Your task to perform on an android device: Do I have any events tomorrow? Image 0: 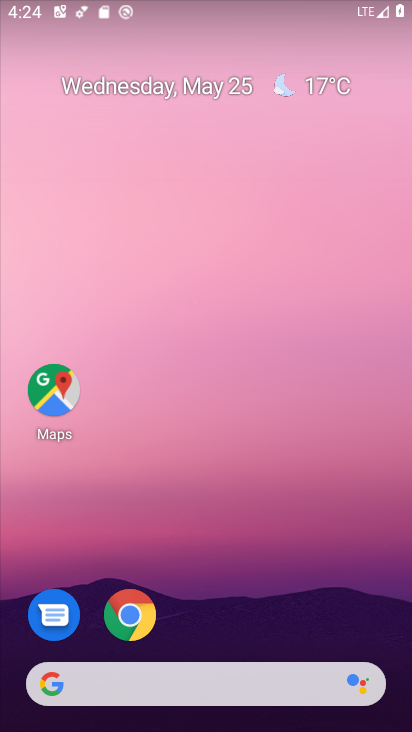
Step 0: click (171, 87)
Your task to perform on an android device: Do I have any events tomorrow? Image 1: 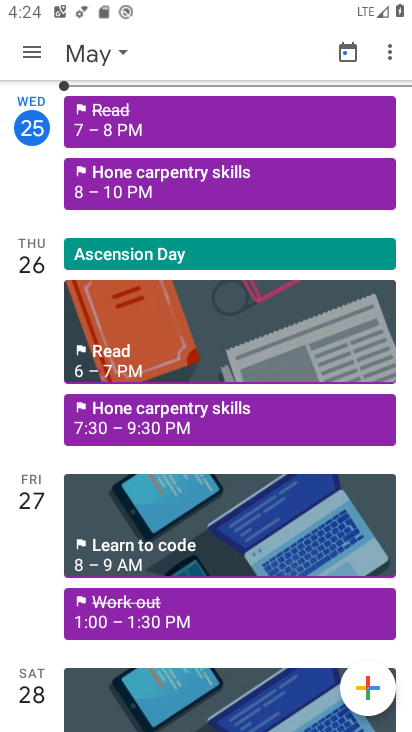
Step 1: task complete